Your task to perform on an android device: open device folders in google photos Image 0: 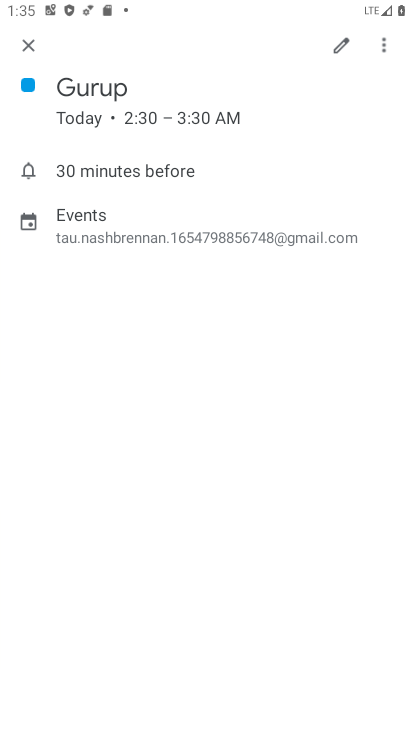
Step 0: click (23, 37)
Your task to perform on an android device: open device folders in google photos Image 1: 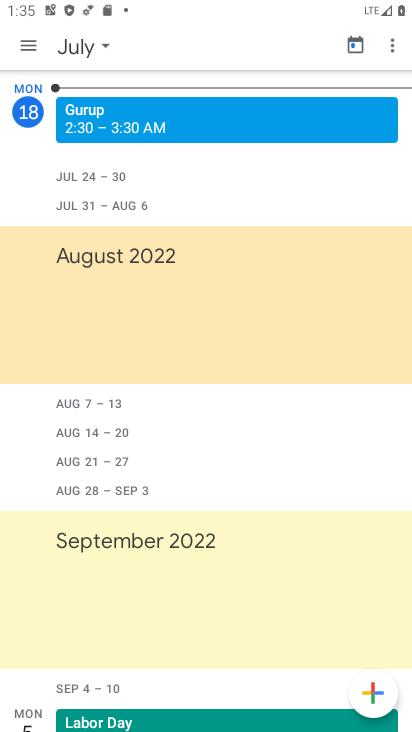
Step 1: press home button
Your task to perform on an android device: open device folders in google photos Image 2: 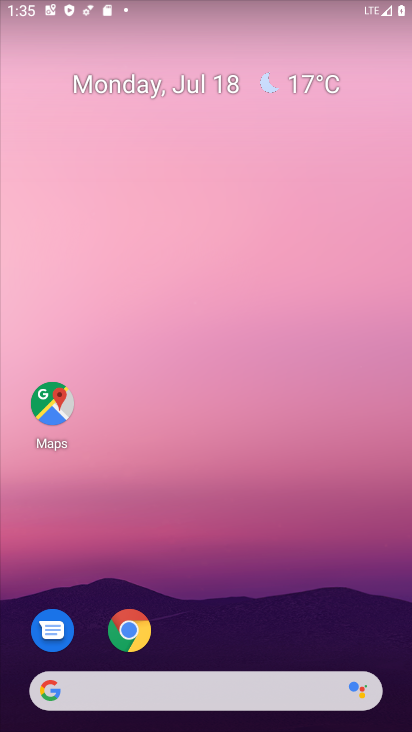
Step 2: drag from (255, 583) to (233, 94)
Your task to perform on an android device: open device folders in google photos Image 3: 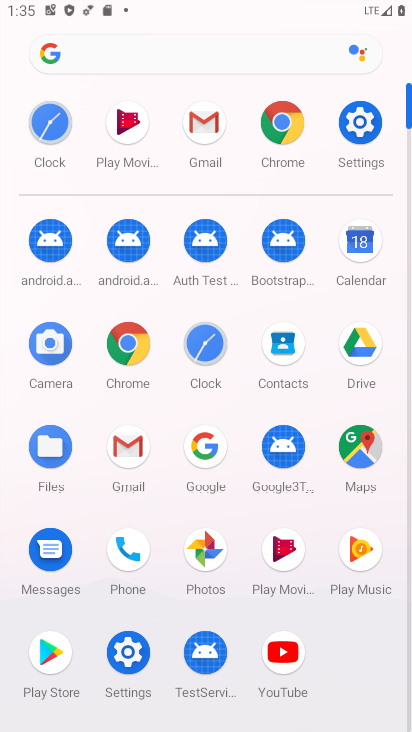
Step 3: click (202, 546)
Your task to perform on an android device: open device folders in google photos Image 4: 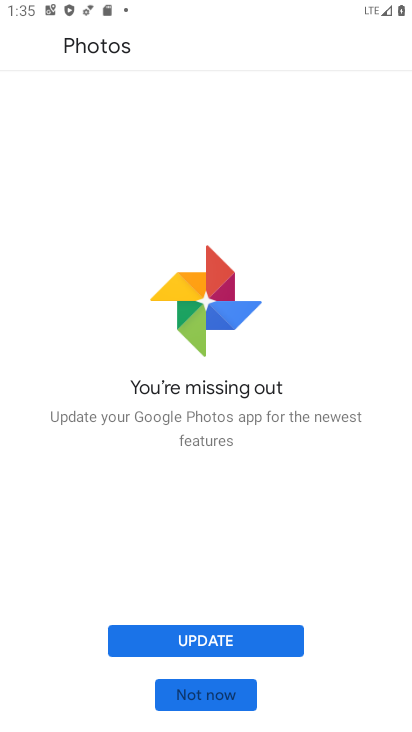
Step 4: click (189, 700)
Your task to perform on an android device: open device folders in google photos Image 5: 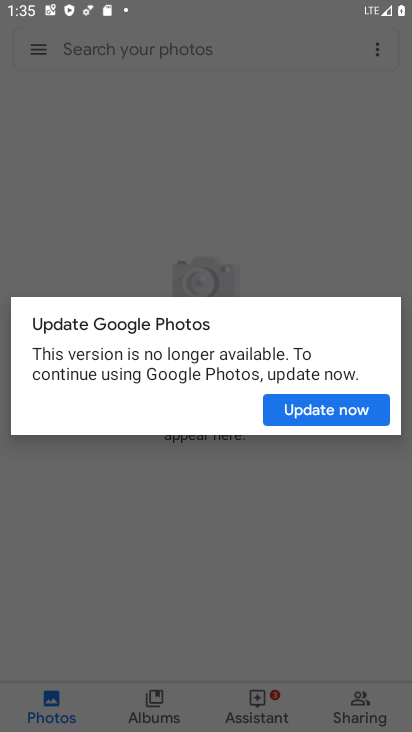
Step 5: click (321, 404)
Your task to perform on an android device: open device folders in google photos Image 6: 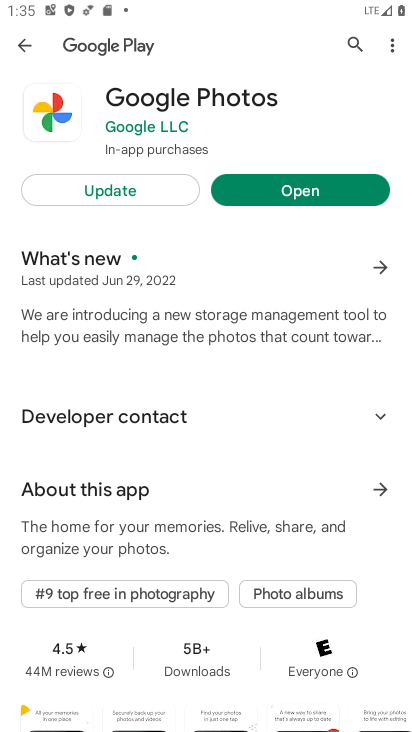
Step 6: click (231, 193)
Your task to perform on an android device: open device folders in google photos Image 7: 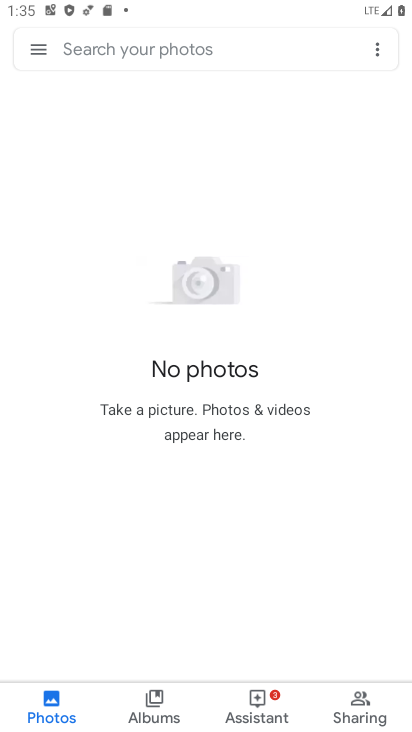
Step 7: click (40, 44)
Your task to perform on an android device: open device folders in google photos Image 8: 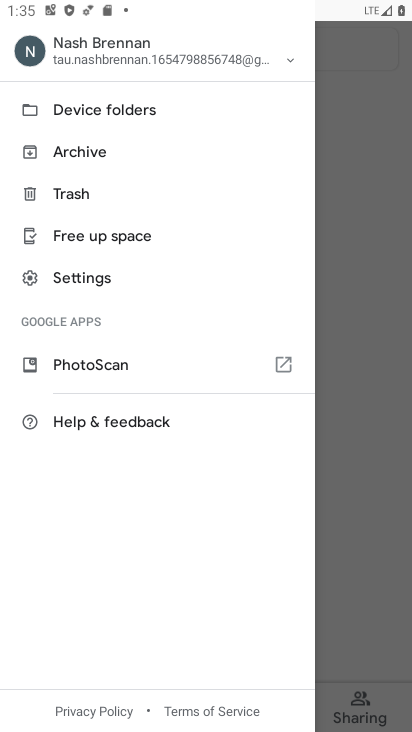
Step 8: click (63, 101)
Your task to perform on an android device: open device folders in google photos Image 9: 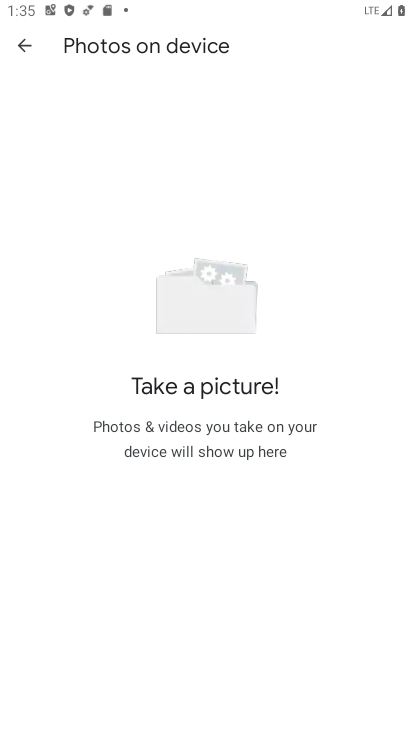
Step 9: task complete